Your task to perform on an android device: turn on improve location accuracy Image 0: 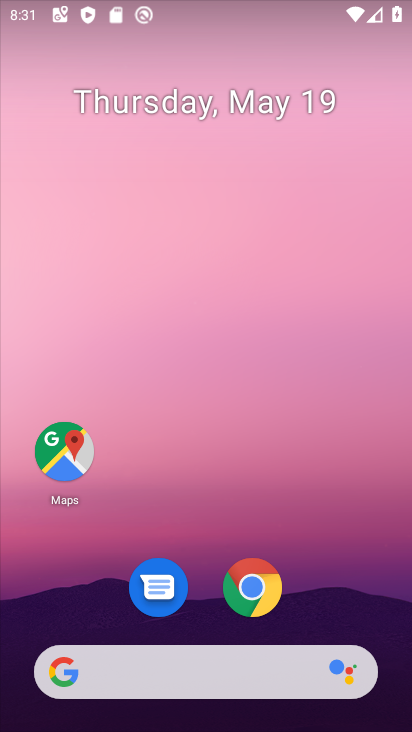
Step 0: drag from (349, 580) to (242, 46)
Your task to perform on an android device: turn on improve location accuracy Image 1: 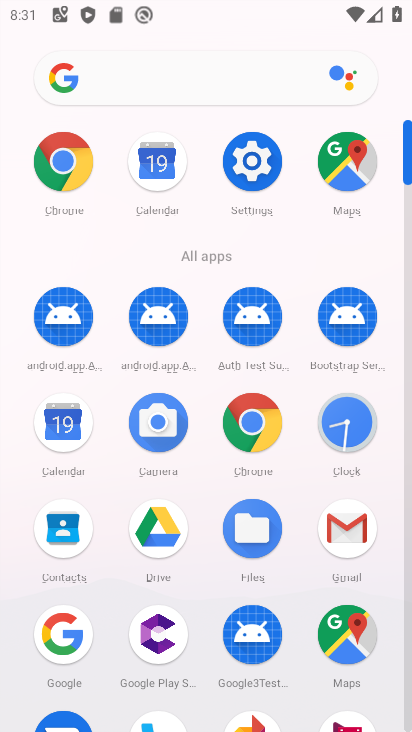
Step 1: drag from (1, 565) to (31, 265)
Your task to perform on an android device: turn on improve location accuracy Image 2: 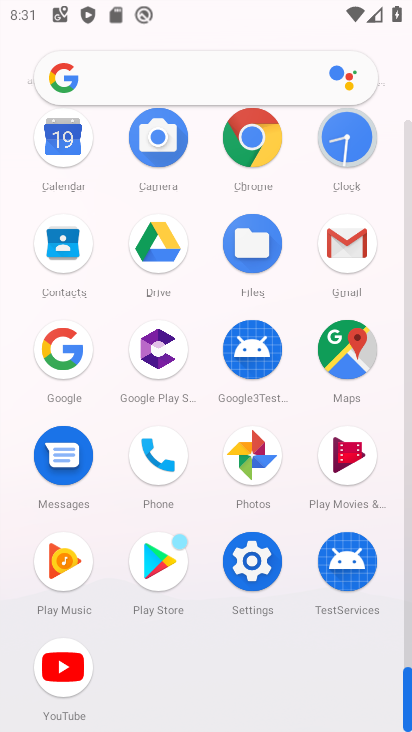
Step 2: click (253, 559)
Your task to perform on an android device: turn on improve location accuracy Image 3: 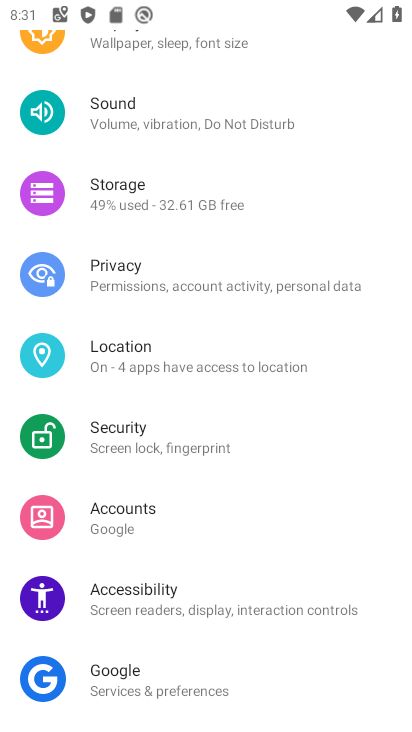
Step 3: drag from (210, 136) to (245, 439)
Your task to perform on an android device: turn on improve location accuracy Image 4: 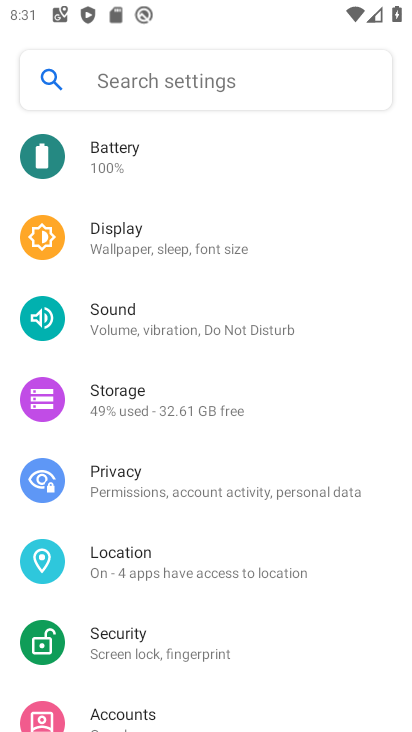
Step 4: click (165, 562)
Your task to perform on an android device: turn on improve location accuracy Image 5: 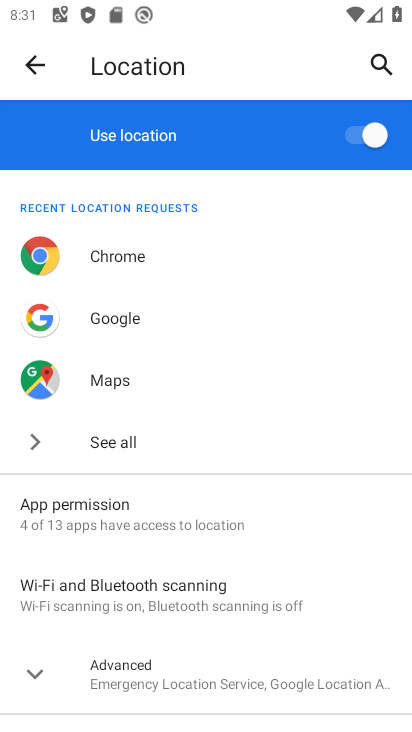
Step 5: click (55, 663)
Your task to perform on an android device: turn on improve location accuracy Image 6: 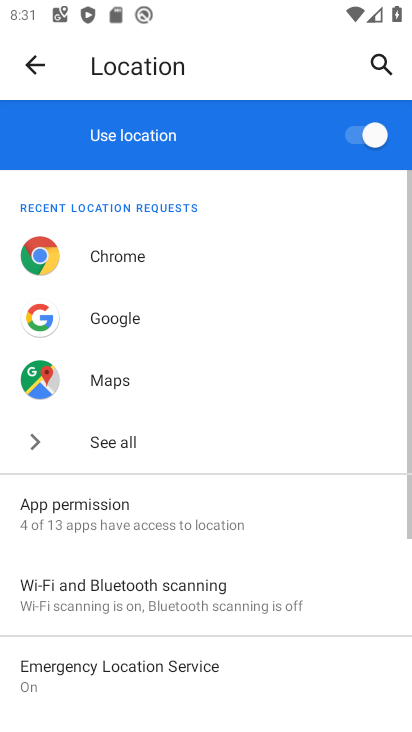
Step 6: drag from (269, 699) to (271, 284)
Your task to perform on an android device: turn on improve location accuracy Image 7: 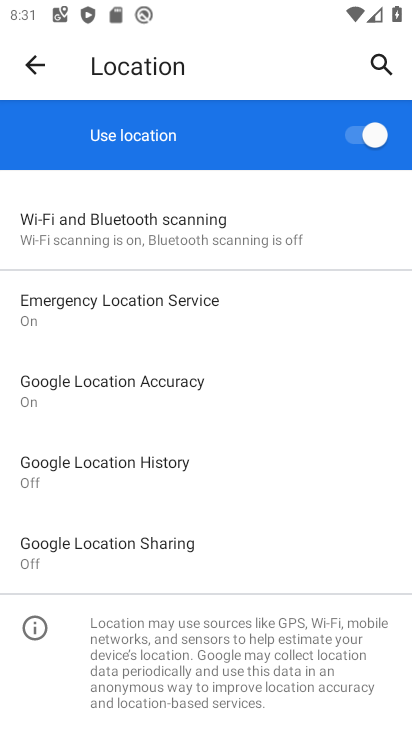
Step 7: click (189, 377)
Your task to perform on an android device: turn on improve location accuracy Image 8: 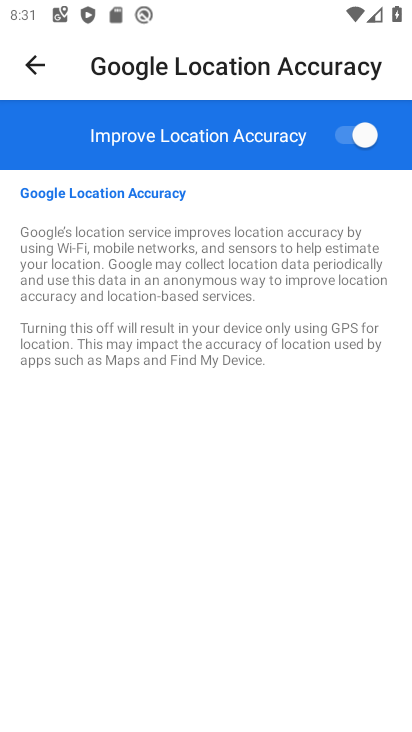
Step 8: task complete